Your task to perform on an android device: snooze an email in the gmail app Image 0: 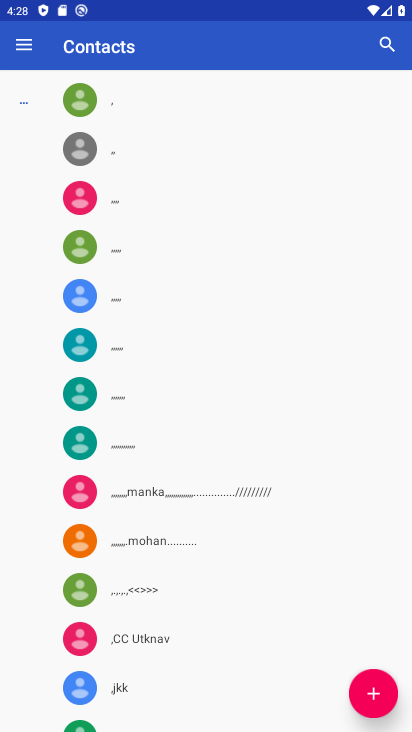
Step 0: press home button
Your task to perform on an android device: snooze an email in the gmail app Image 1: 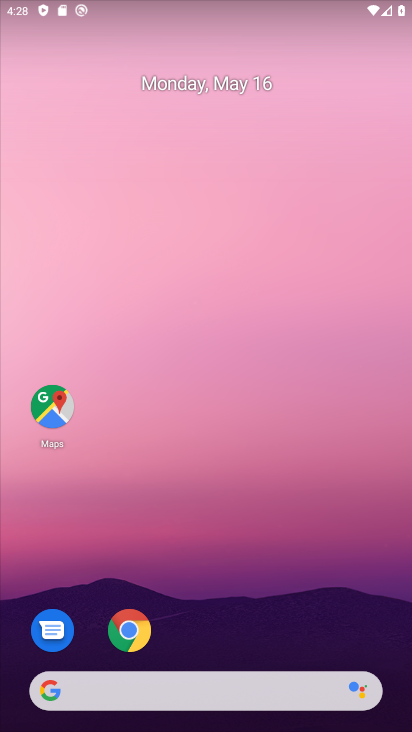
Step 1: drag from (297, 641) to (348, 34)
Your task to perform on an android device: snooze an email in the gmail app Image 2: 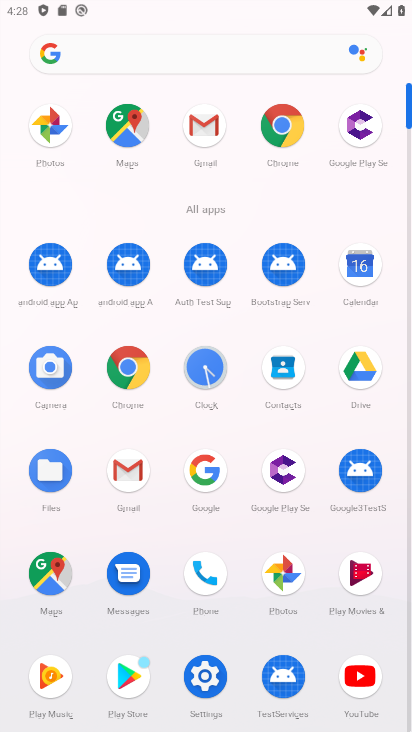
Step 2: click (131, 482)
Your task to perform on an android device: snooze an email in the gmail app Image 3: 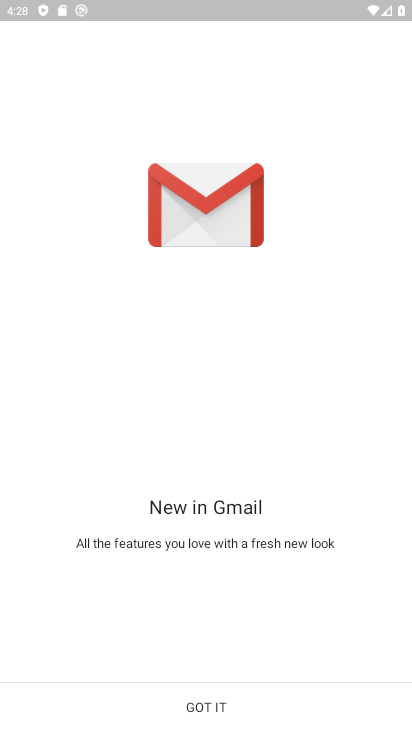
Step 3: click (266, 703)
Your task to perform on an android device: snooze an email in the gmail app Image 4: 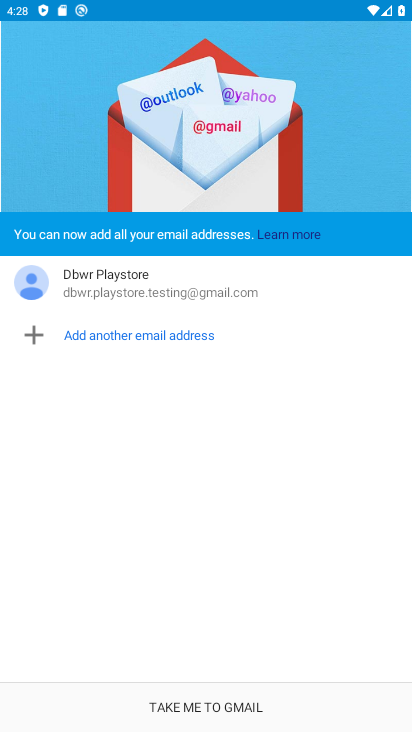
Step 4: click (266, 703)
Your task to perform on an android device: snooze an email in the gmail app Image 5: 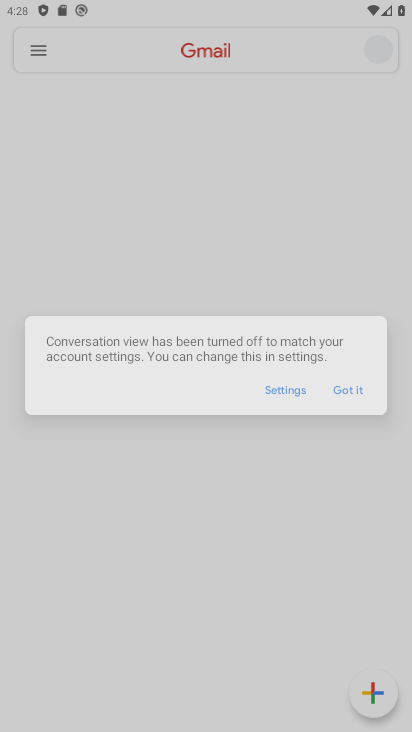
Step 5: click (266, 703)
Your task to perform on an android device: snooze an email in the gmail app Image 6: 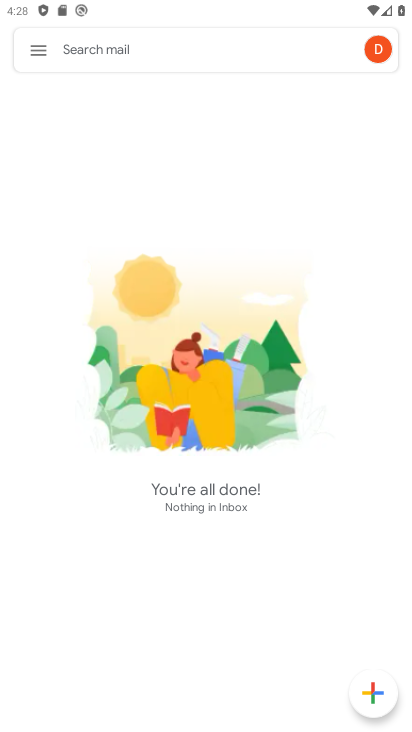
Step 6: click (50, 61)
Your task to perform on an android device: snooze an email in the gmail app Image 7: 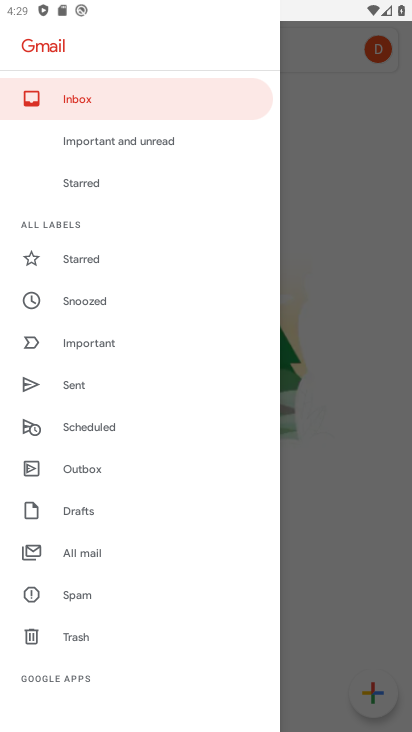
Step 7: task complete